Your task to perform on an android device: Open Wikipedia Image 0: 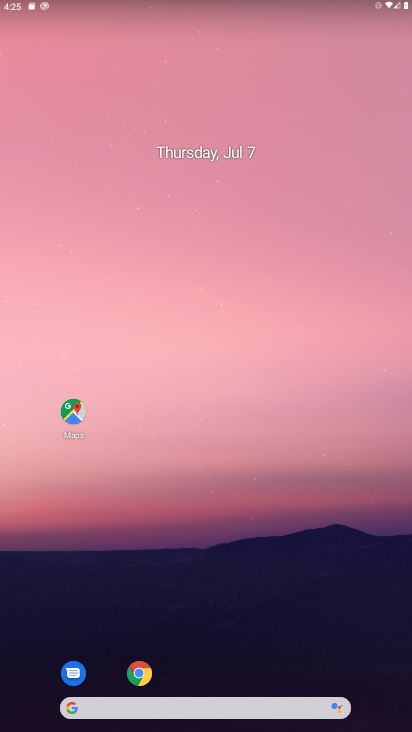
Step 0: press home button
Your task to perform on an android device: Open Wikipedia Image 1: 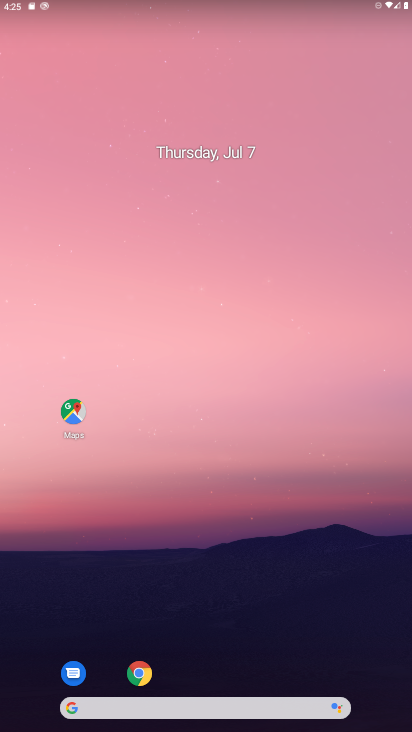
Step 1: drag from (206, 685) to (235, 102)
Your task to perform on an android device: Open Wikipedia Image 2: 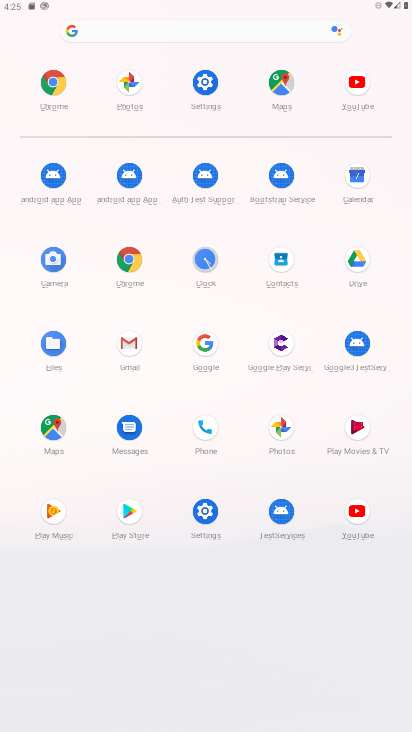
Step 2: click (126, 255)
Your task to perform on an android device: Open Wikipedia Image 3: 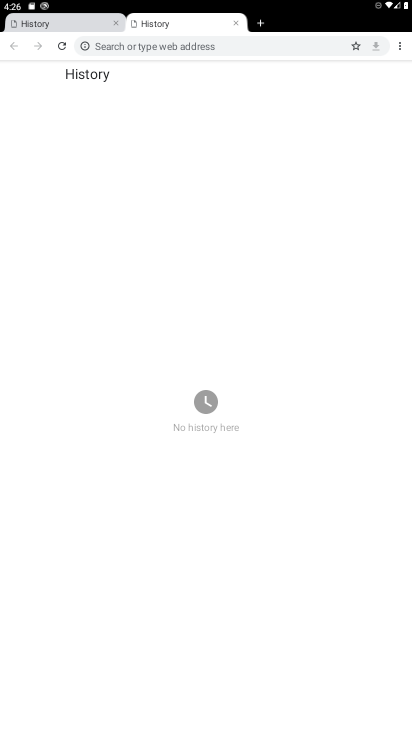
Step 3: click (256, 12)
Your task to perform on an android device: Open Wikipedia Image 4: 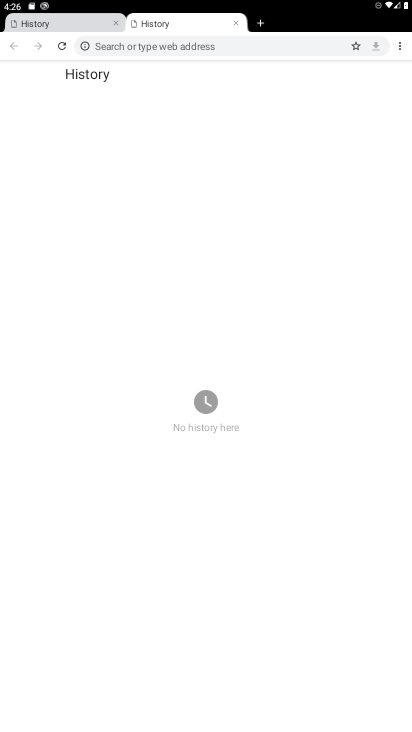
Step 4: click (268, 20)
Your task to perform on an android device: Open Wikipedia Image 5: 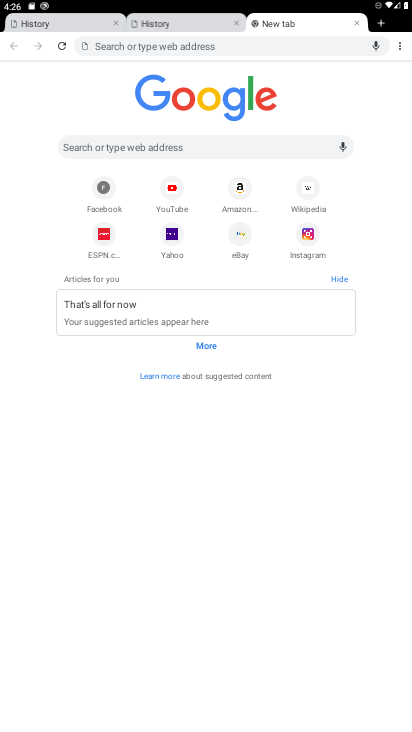
Step 5: click (306, 187)
Your task to perform on an android device: Open Wikipedia Image 6: 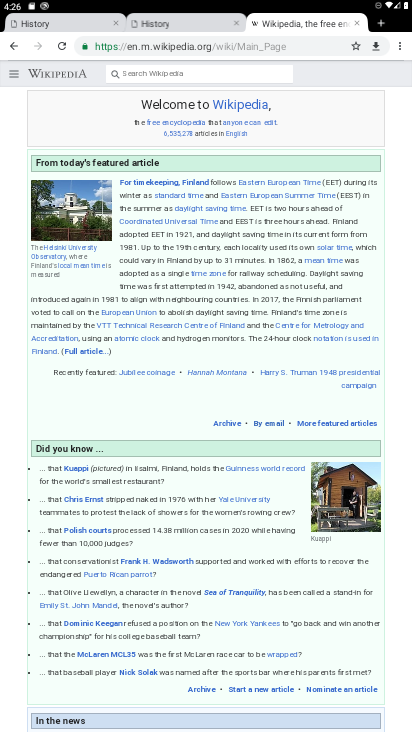
Step 6: task complete